Your task to perform on an android device: turn notification dots on Image 0: 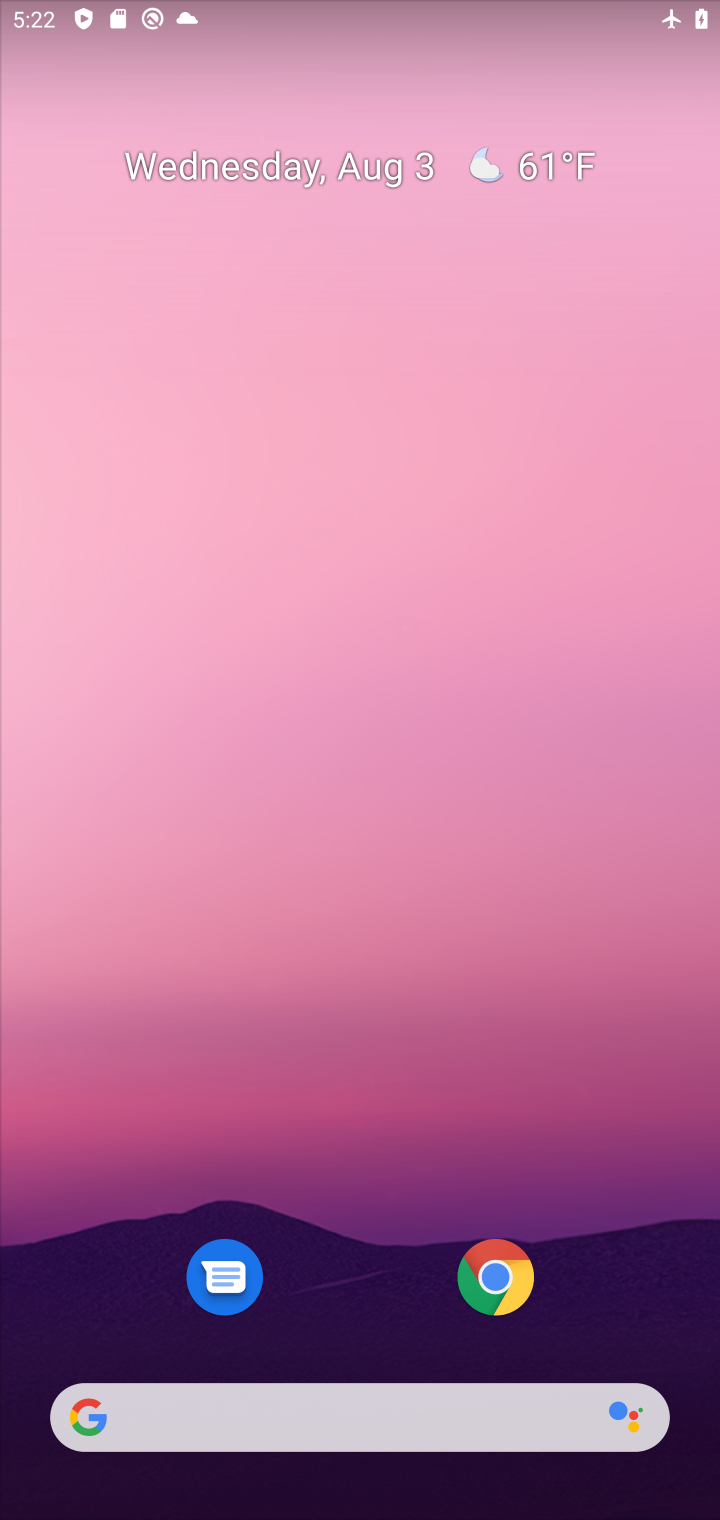
Step 0: drag from (370, 863) to (717, 224)
Your task to perform on an android device: turn notification dots on Image 1: 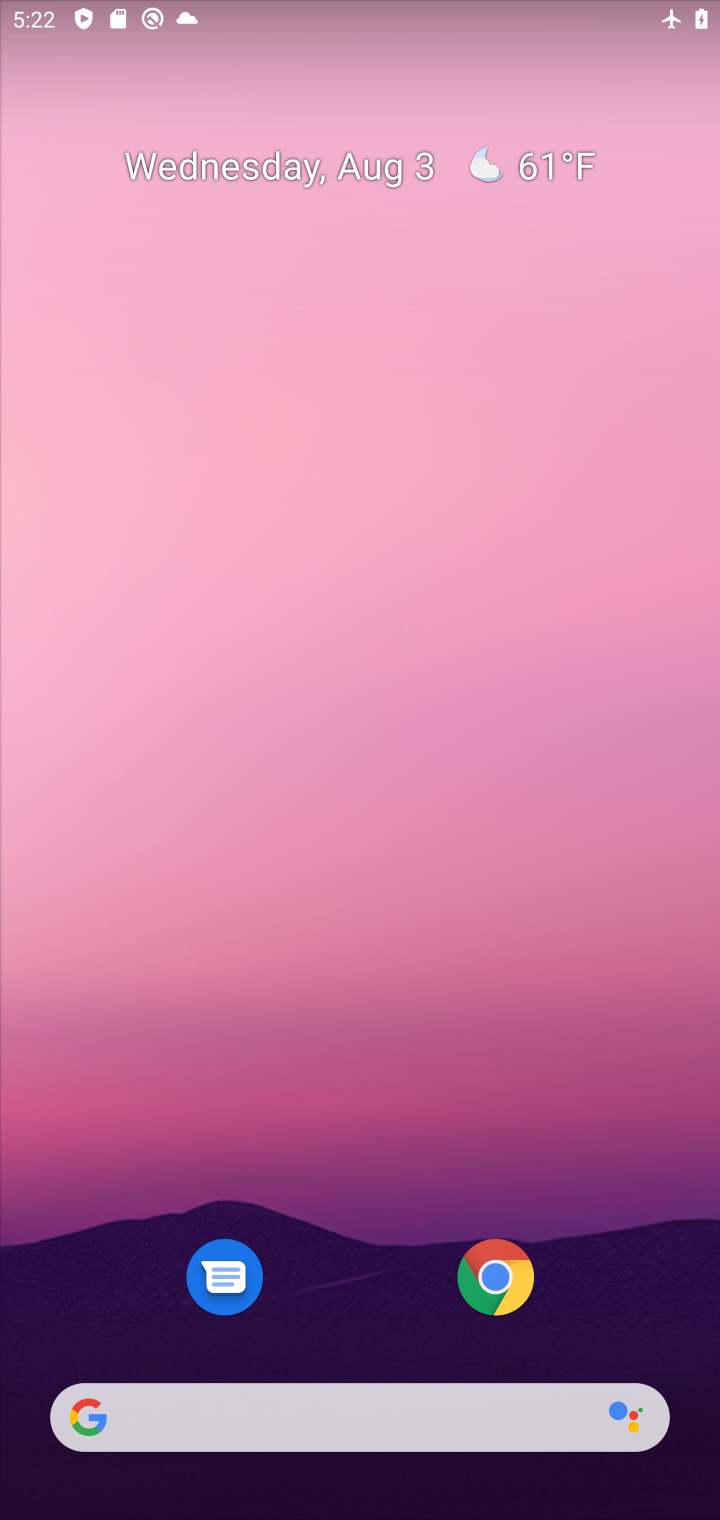
Step 1: drag from (278, 1085) to (497, 0)
Your task to perform on an android device: turn notification dots on Image 2: 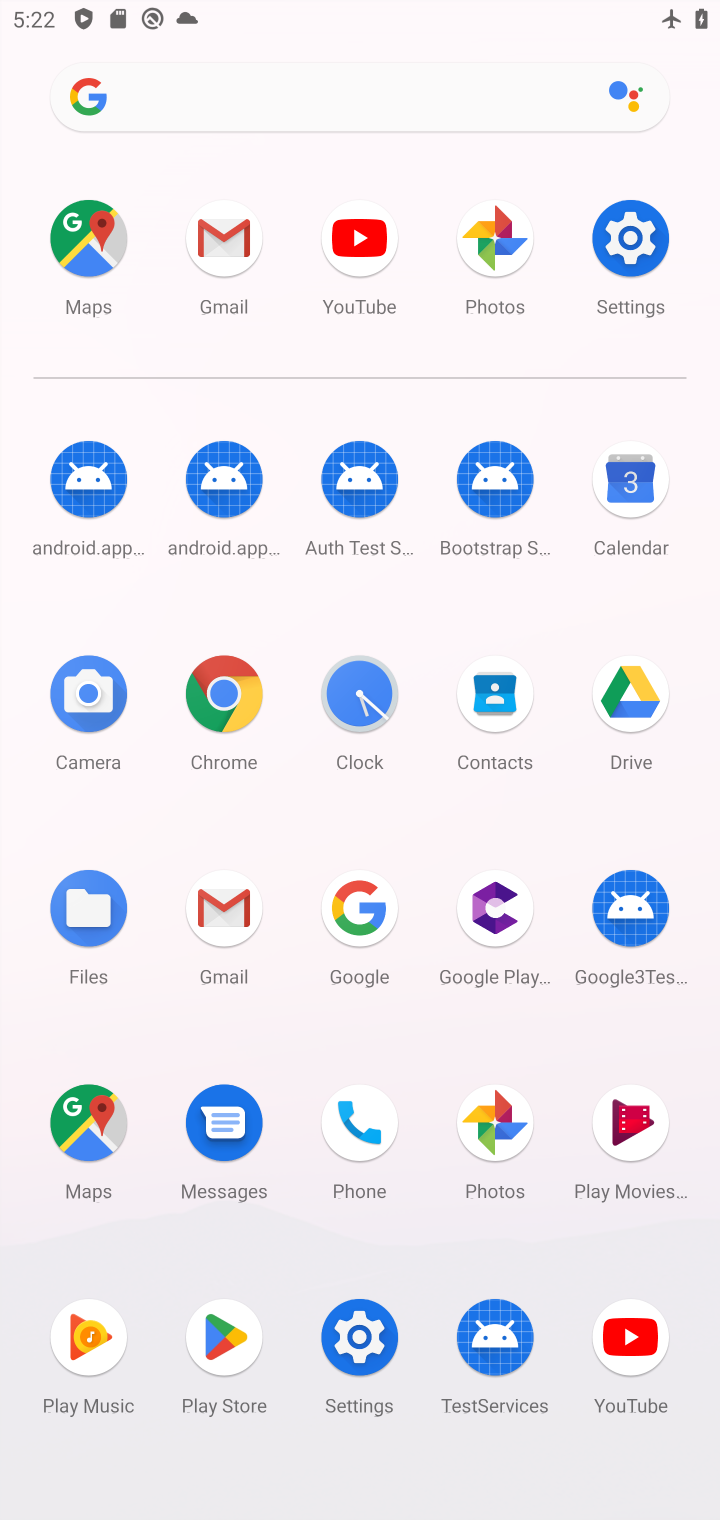
Step 2: click (643, 256)
Your task to perform on an android device: turn notification dots on Image 3: 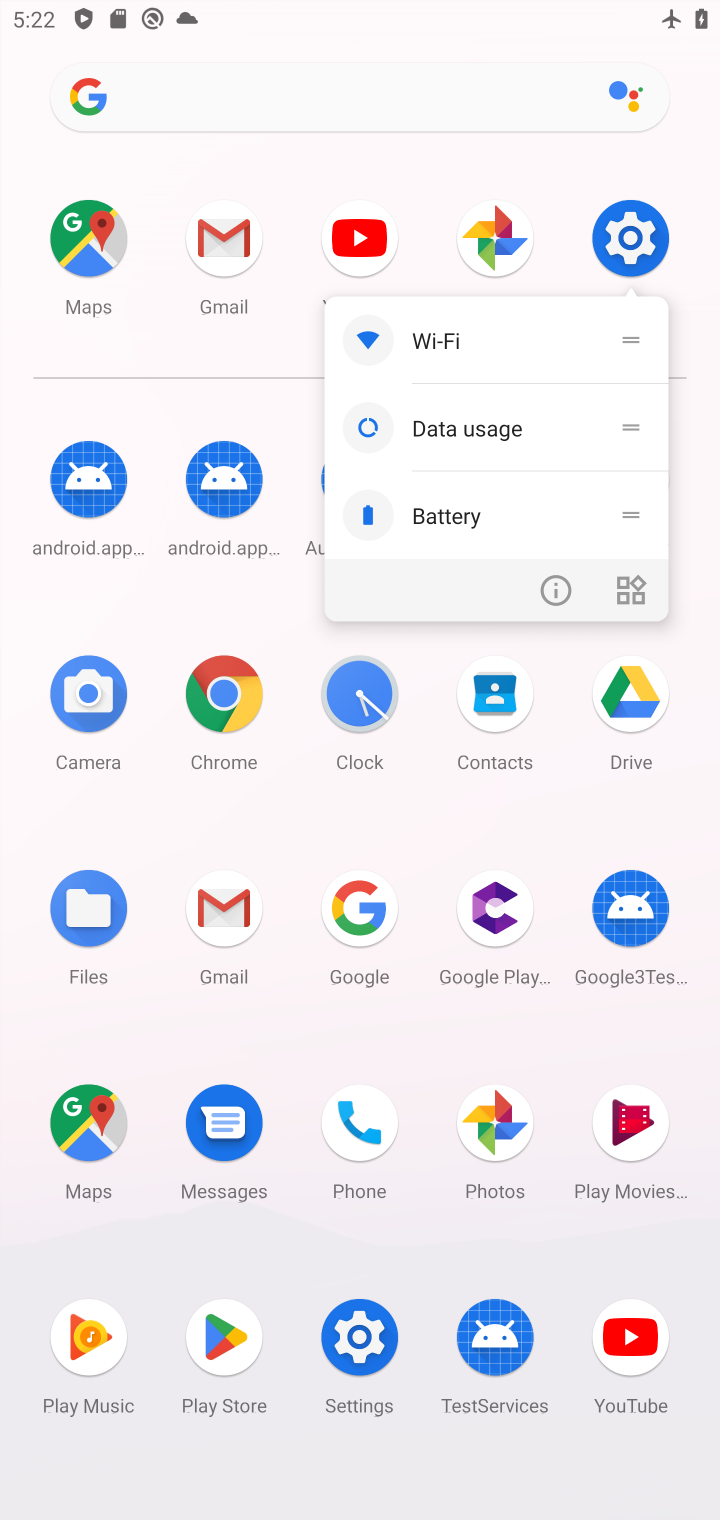
Step 3: click (645, 230)
Your task to perform on an android device: turn notification dots on Image 4: 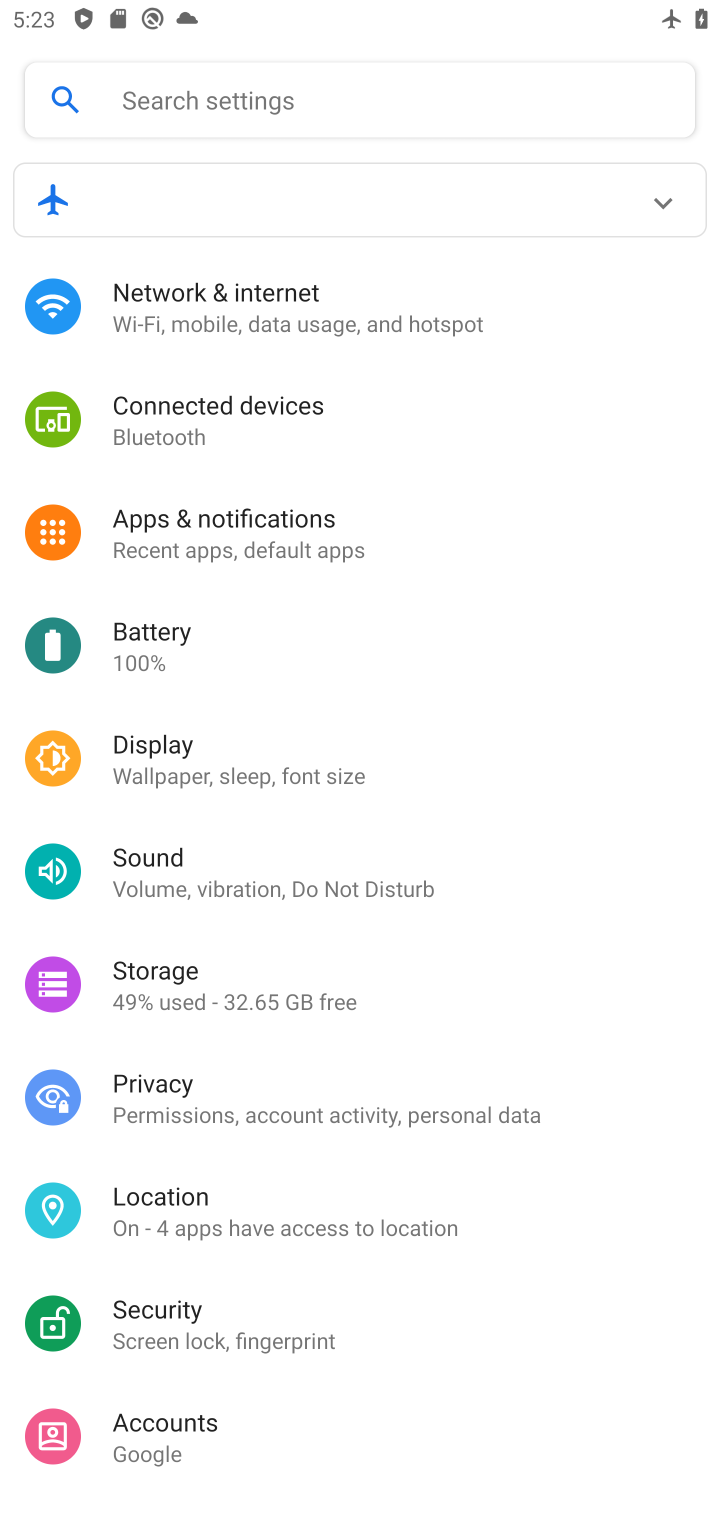
Step 4: click (266, 537)
Your task to perform on an android device: turn notification dots on Image 5: 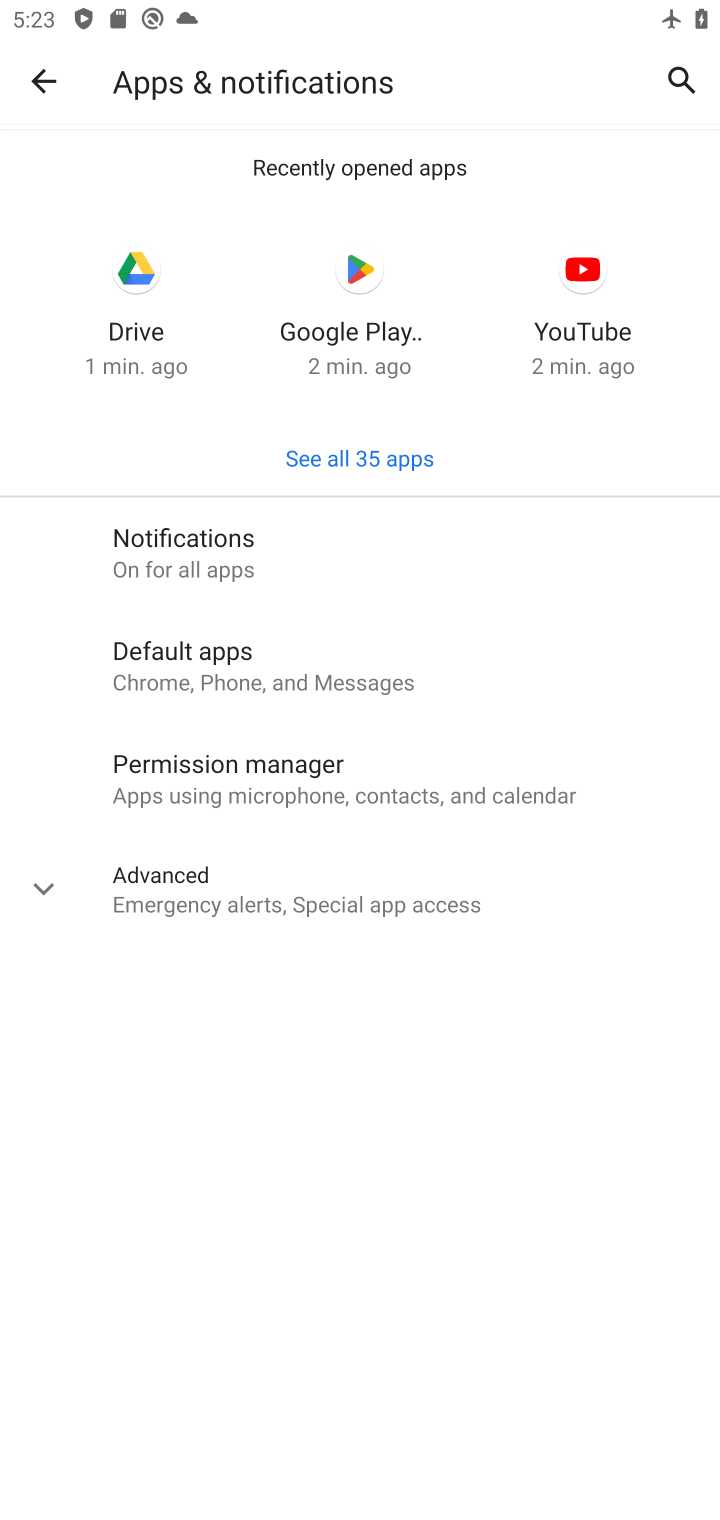
Step 5: click (266, 537)
Your task to perform on an android device: turn notification dots on Image 6: 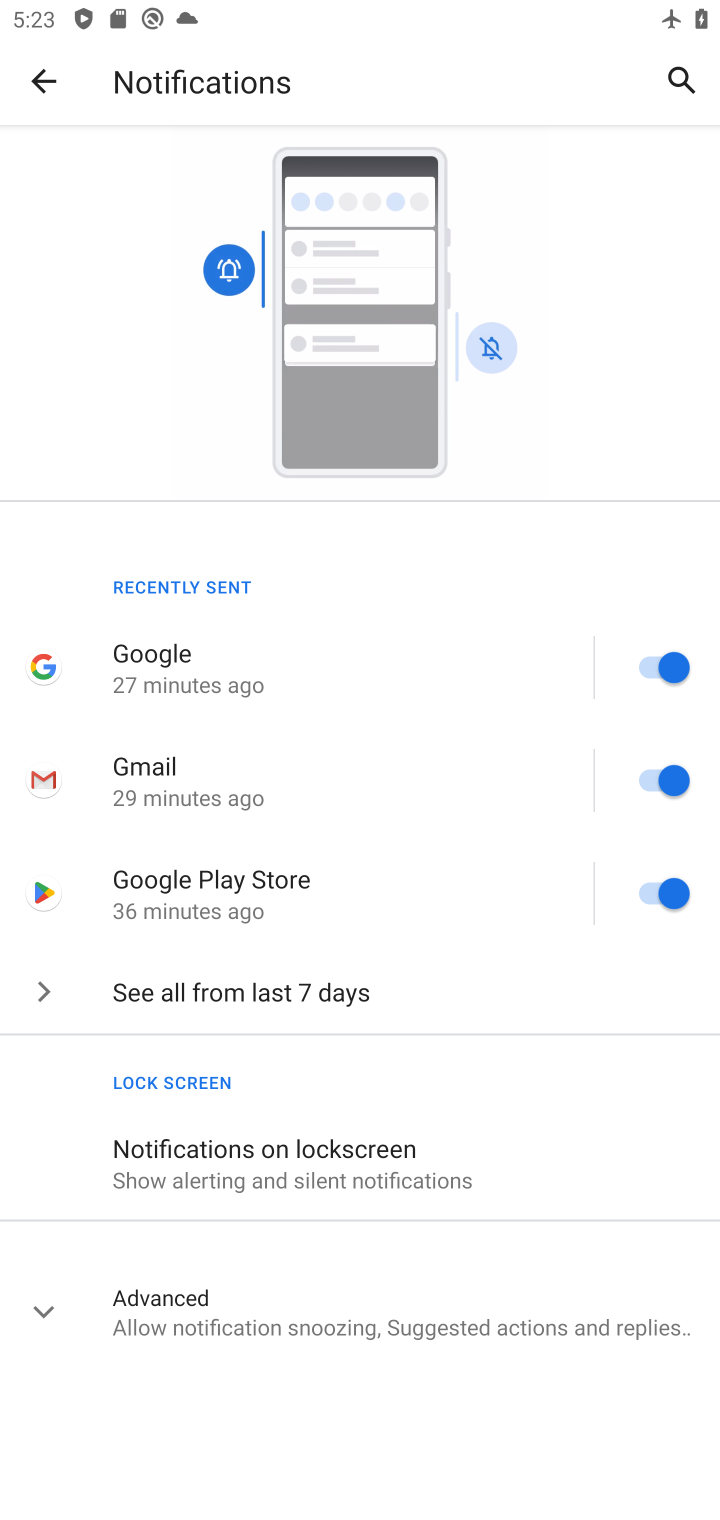
Step 6: click (266, 1319)
Your task to perform on an android device: turn notification dots on Image 7: 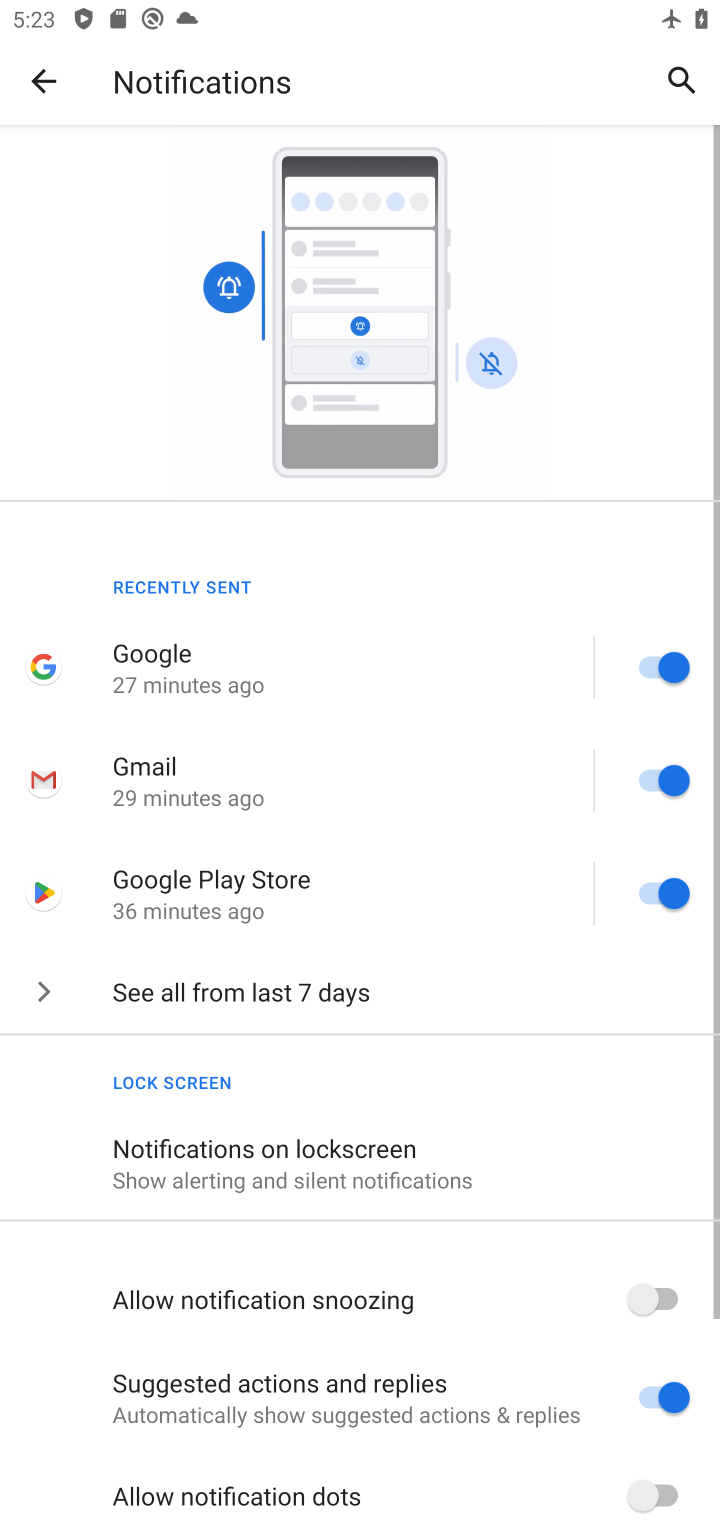
Step 7: drag from (271, 1273) to (362, 526)
Your task to perform on an android device: turn notification dots on Image 8: 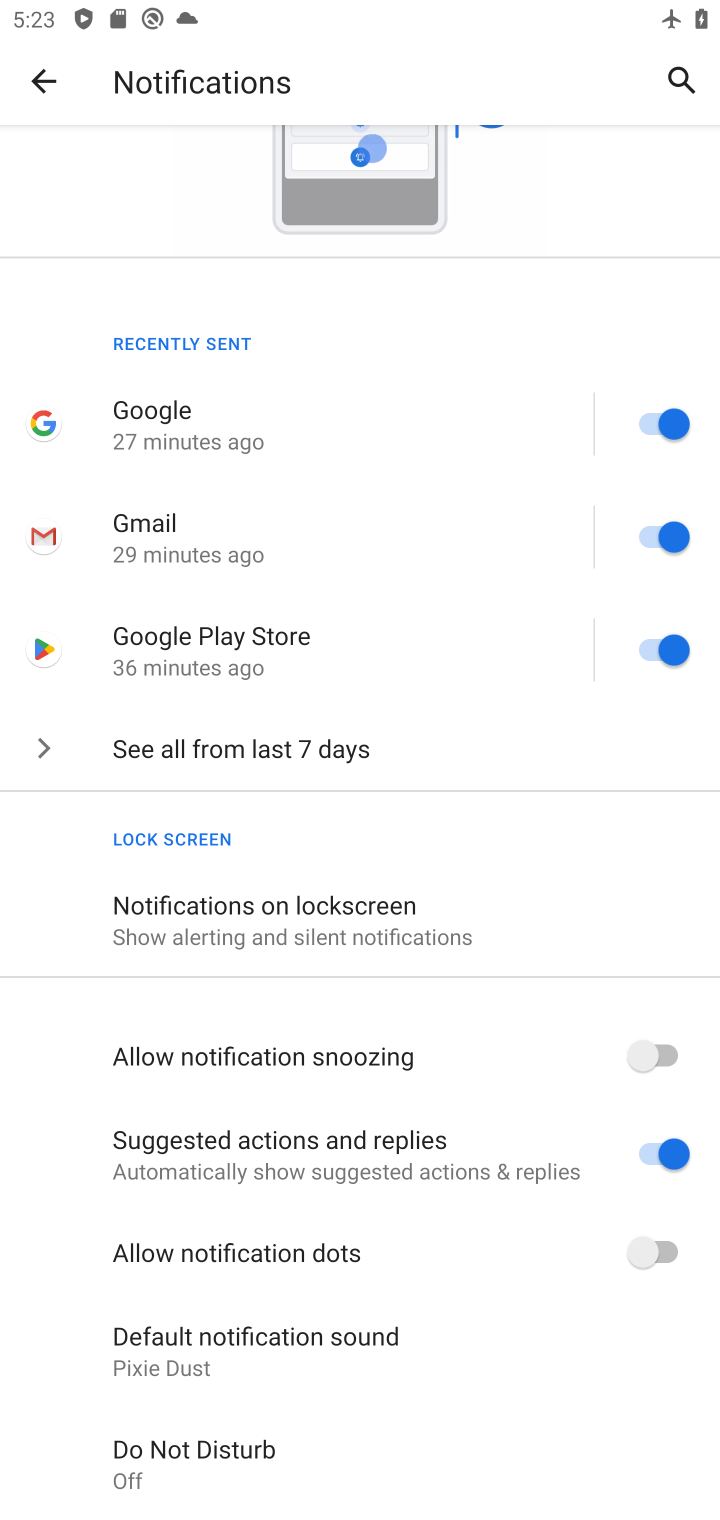
Step 8: click (657, 1256)
Your task to perform on an android device: turn notification dots on Image 9: 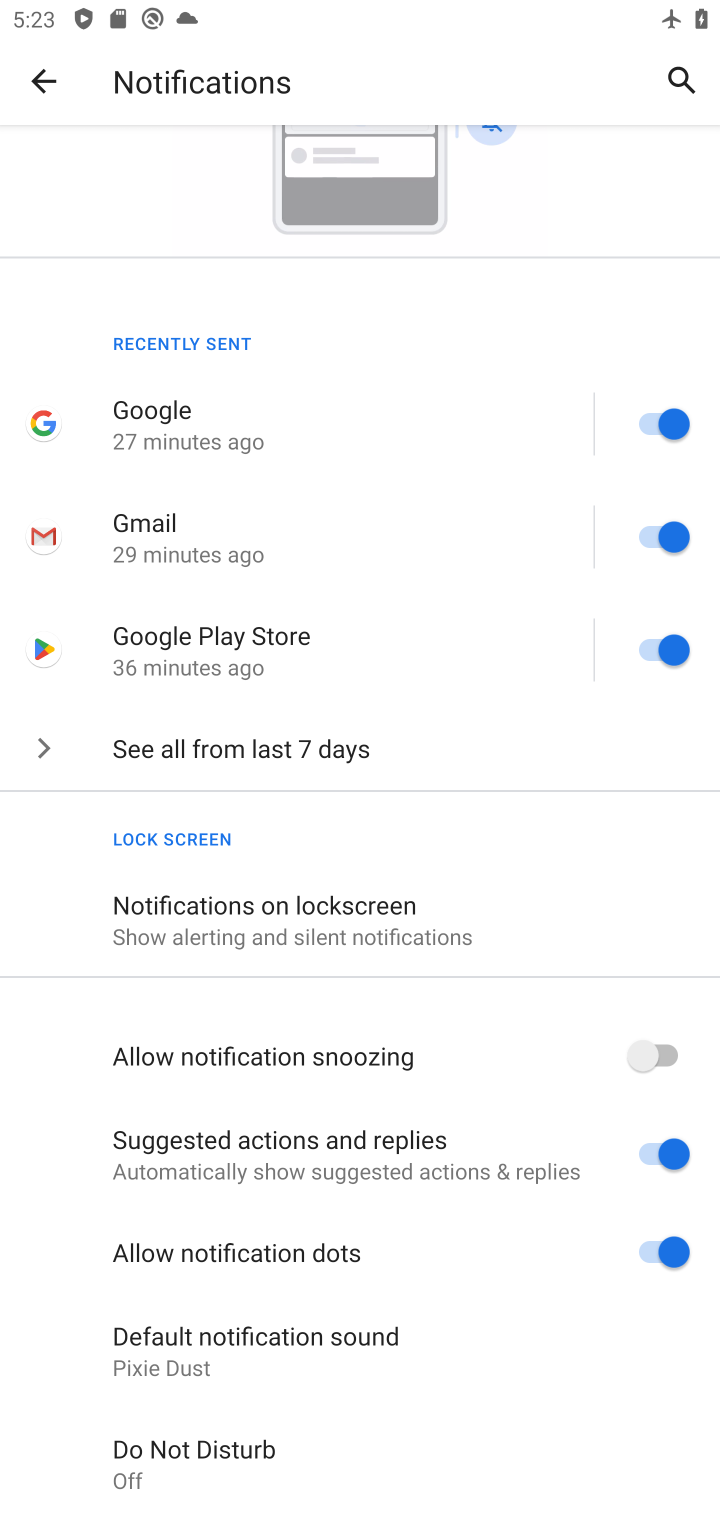
Step 9: task complete